Your task to perform on an android device: Open sound settings Image 0: 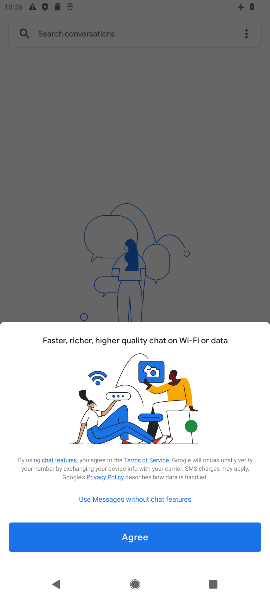
Step 0: press home button
Your task to perform on an android device: Open sound settings Image 1: 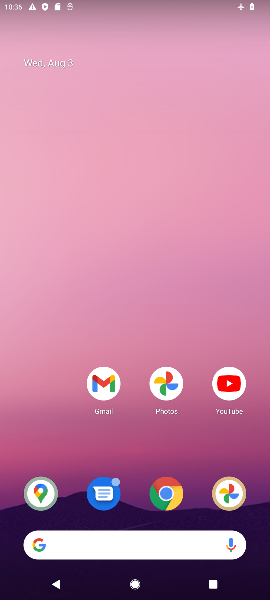
Step 1: click (107, 384)
Your task to perform on an android device: Open sound settings Image 2: 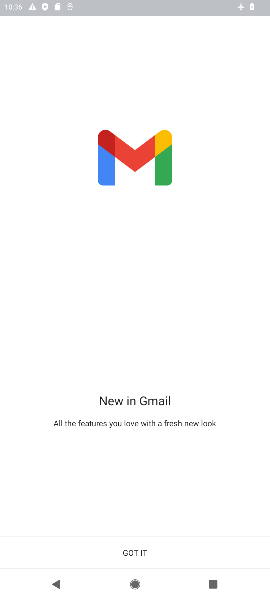
Step 2: click (137, 564)
Your task to perform on an android device: Open sound settings Image 3: 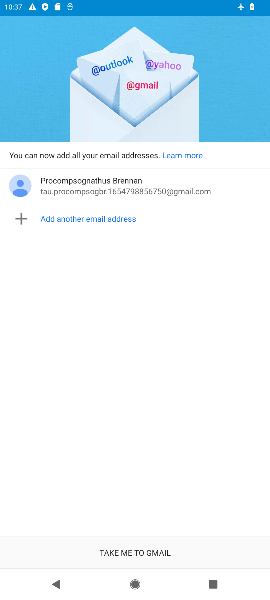
Step 3: click (180, 548)
Your task to perform on an android device: Open sound settings Image 4: 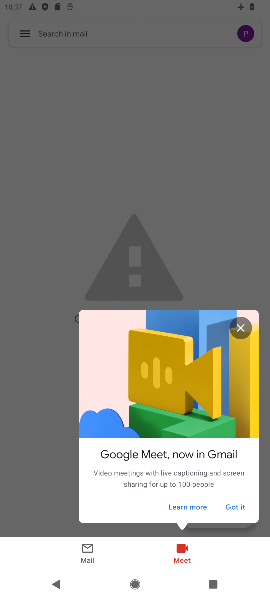
Step 4: press home button
Your task to perform on an android device: Open sound settings Image 5: 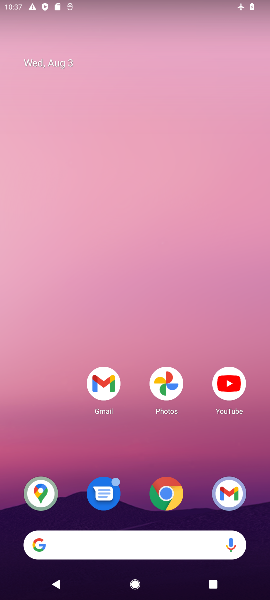
Step 5: drag from (202, 436) to (156, 83)
Your task to perform on an android device: Open sound settings Image 6: 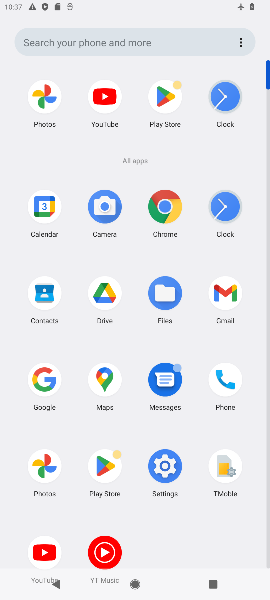
Step 6: click (171, 472)
Your task to perform on an android device: Open sound settings Image 7: 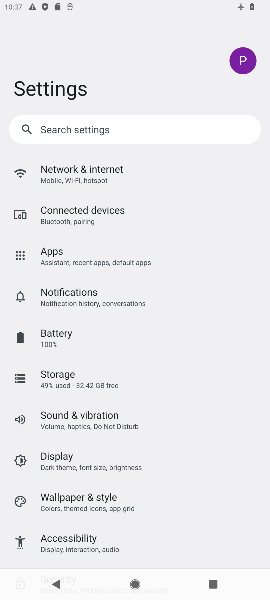
Step 7: click (92, 419)
Your task to perform on an android device: Open sound settings Image 8: 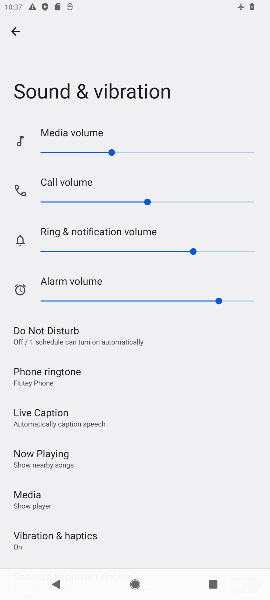
Step 8: task complete